Your task to perform on an android device: Go to sound settings Image 0: 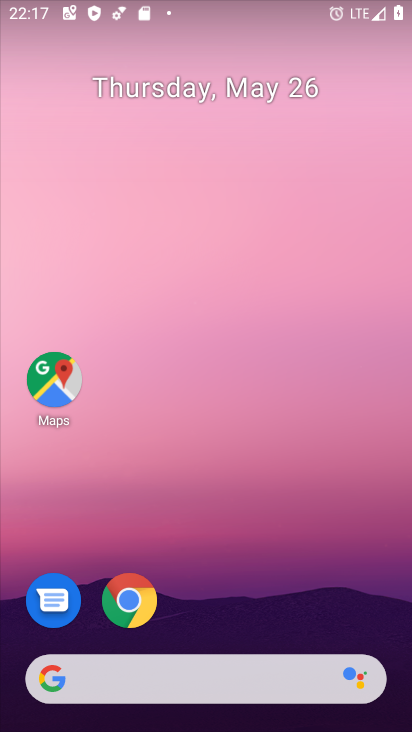
Step 0: drag from (209, 532) to (281, 56)
Your task to perform on an android device: Go to sound settings Image 1: 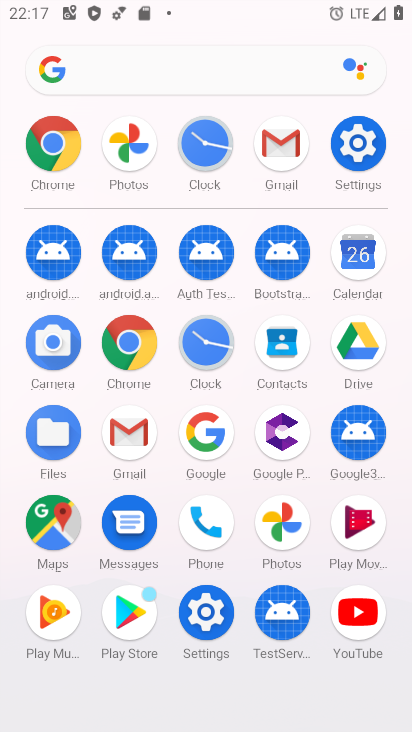
Step 1: click (353, 134)
Your task to perform on an android device: Go to sound settings Image 2: 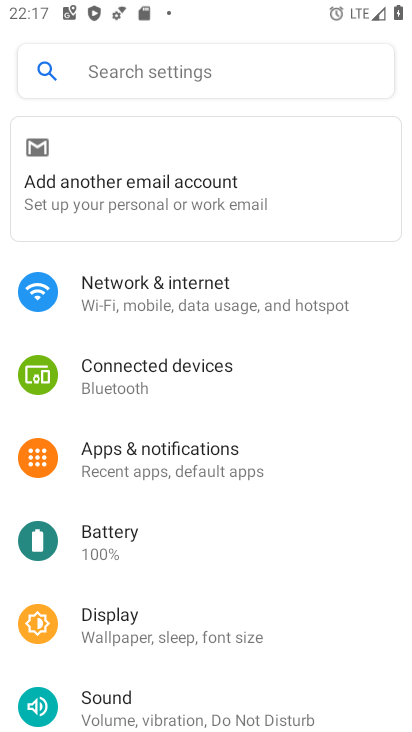
Step 2: click (117, 693)
Your task to perform on an android device: Go to sound settings Image 3: 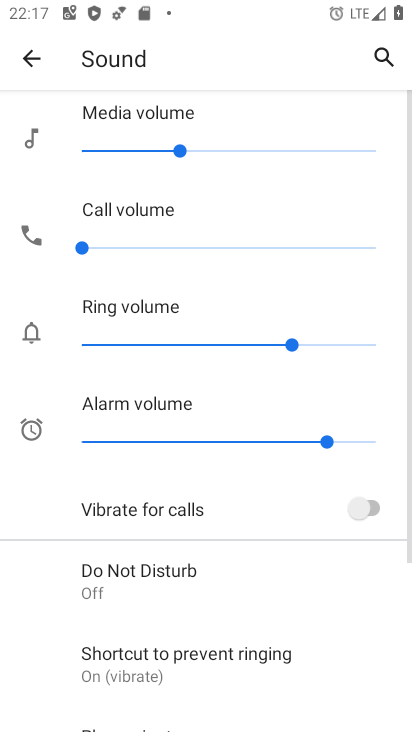
Step 3: task complete